Your task to perform on an android device: open app "Flipkart Online Shopping App" (install if not already installed) Image 0: 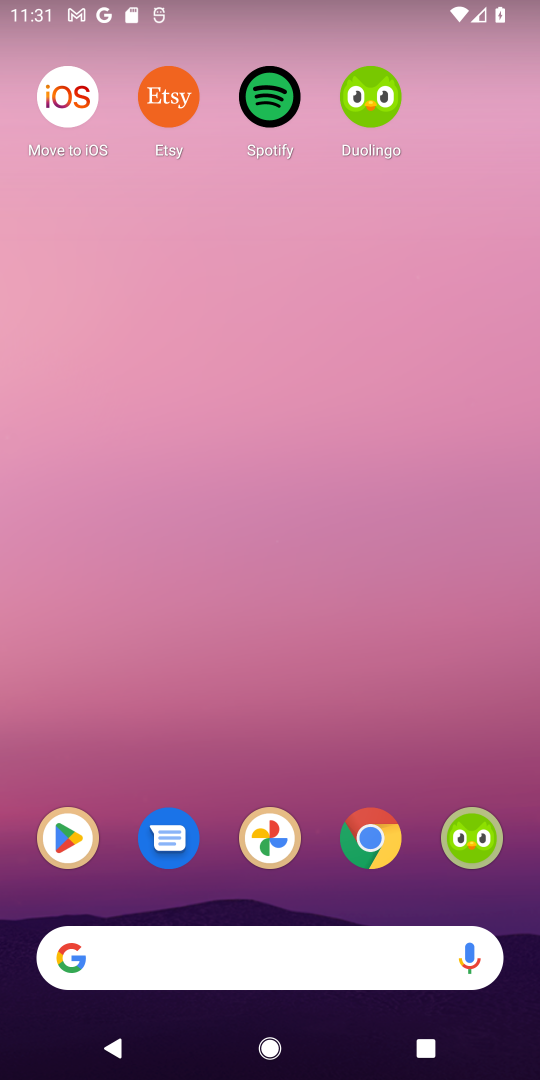
Step 0: drag from (289, 957) to (255, 158)
Your task to perform on an android device: open app "Flipkart Online Shopping App" (install if not already installed) Image 1: 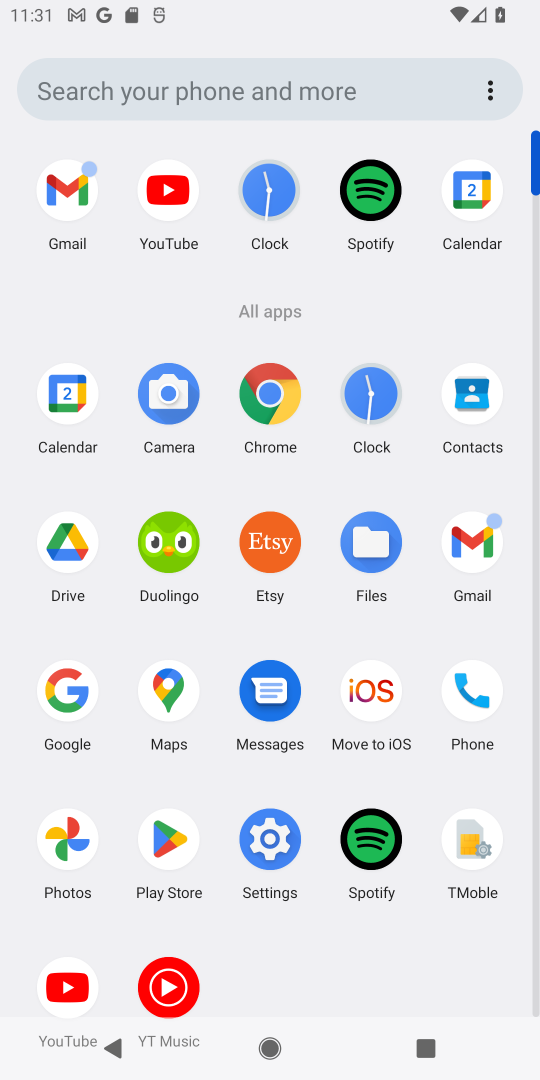
Step 1: click (181, 829)
Your task to perform on an android device: open app "Flipkart Online Shopping App" (install if not already installed) Image 2: 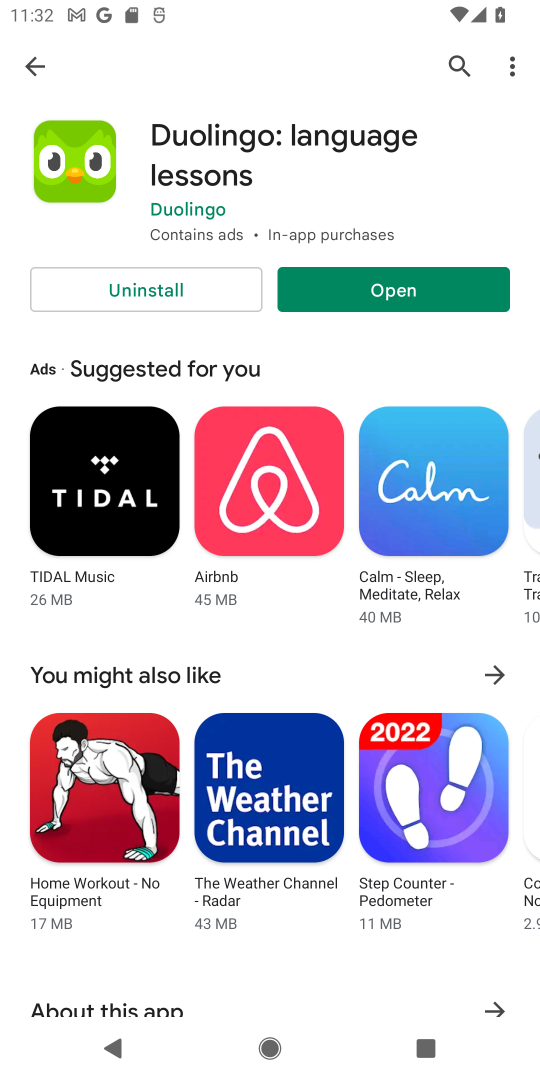
Step 2: click (461, 67)
Your task to perform on an android device: open app "Flipkart Online Shopping App" (install if not already installed) Image 3: 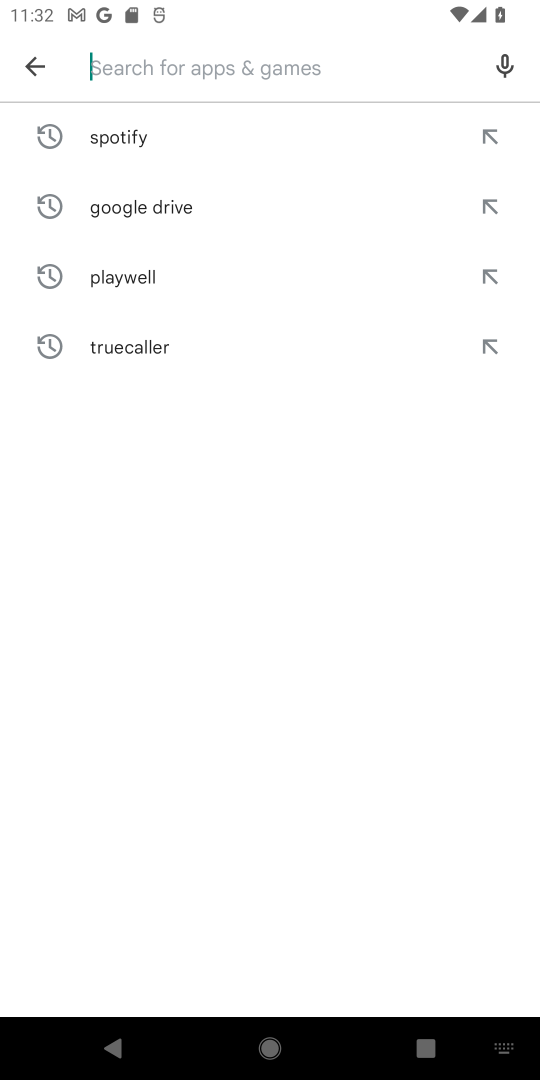
Step 3: type "flipkart"
Your task to perform on an android device: open app "Flipkart Online Shopping App" (install if not already installed) Image 4: 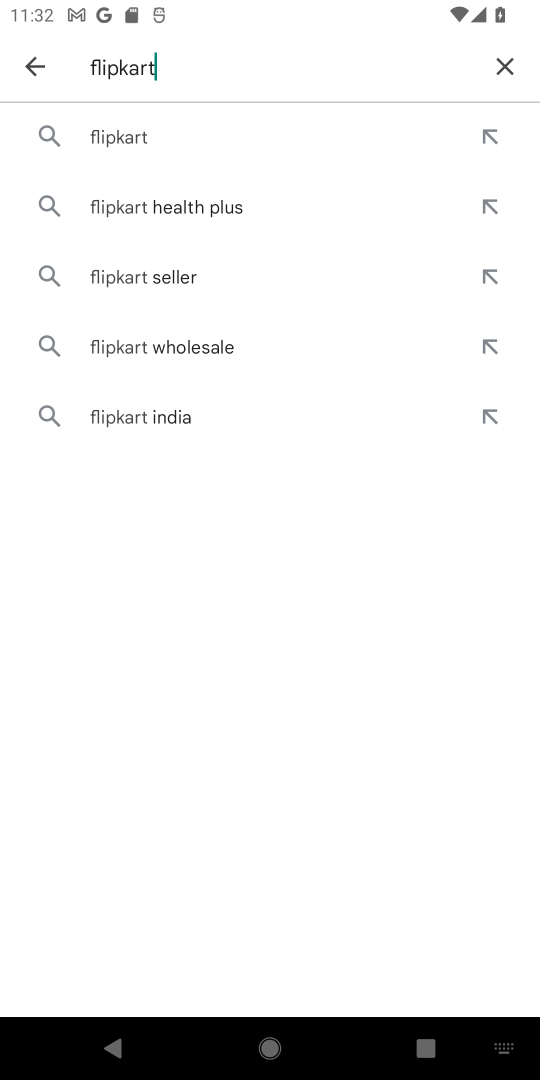
Step 4: click (162, 133)
Your task to perform on an android device: open app "Flipkart Online Shopping App" (install if not already installed) Image 5: 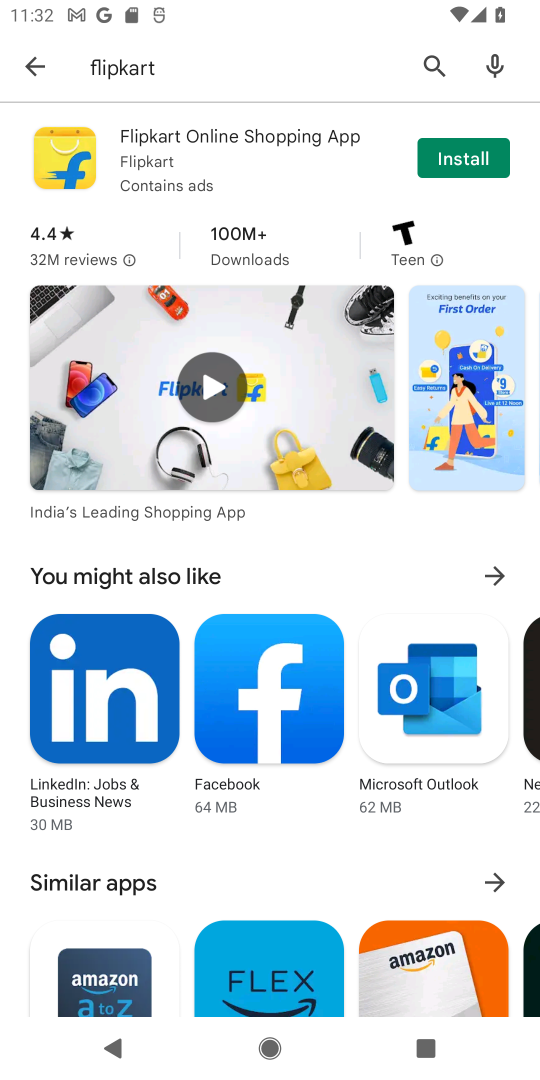
Step 5: click (468, 165)
Your task to perform on an android device: open app "Flipkart Online Shopping App" (install if not already installed) Image 6: 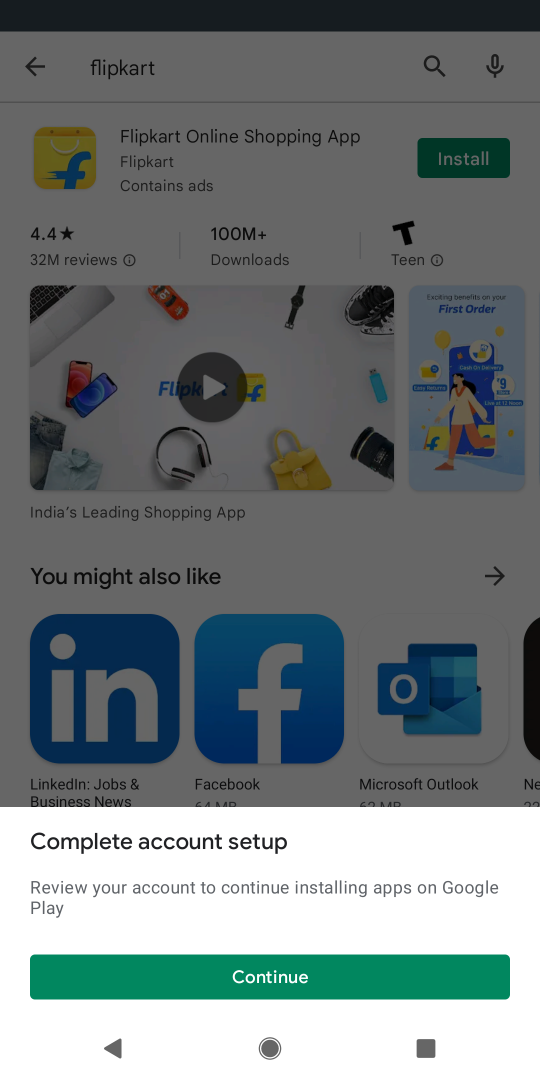
Step 6: click (289, 963)
Your task to perform on an android device: open app "Flipkart Online Shopping App" (install if not already installed) Image 7: 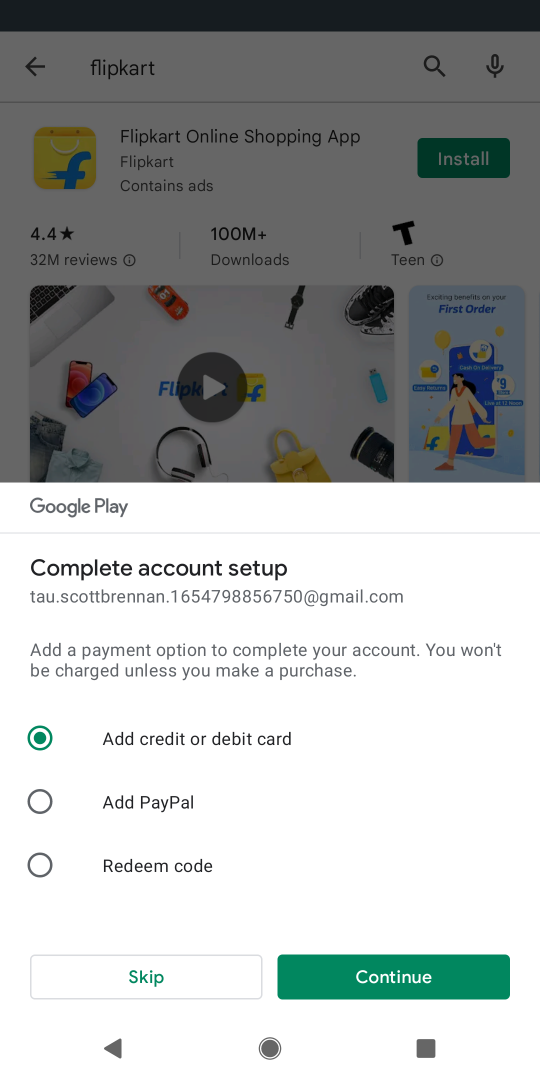
Step 7: click (226, 985)
Your task to perform on an android device: open app "Flipkart Online Shopping App" (install if not already installed) Image 8: 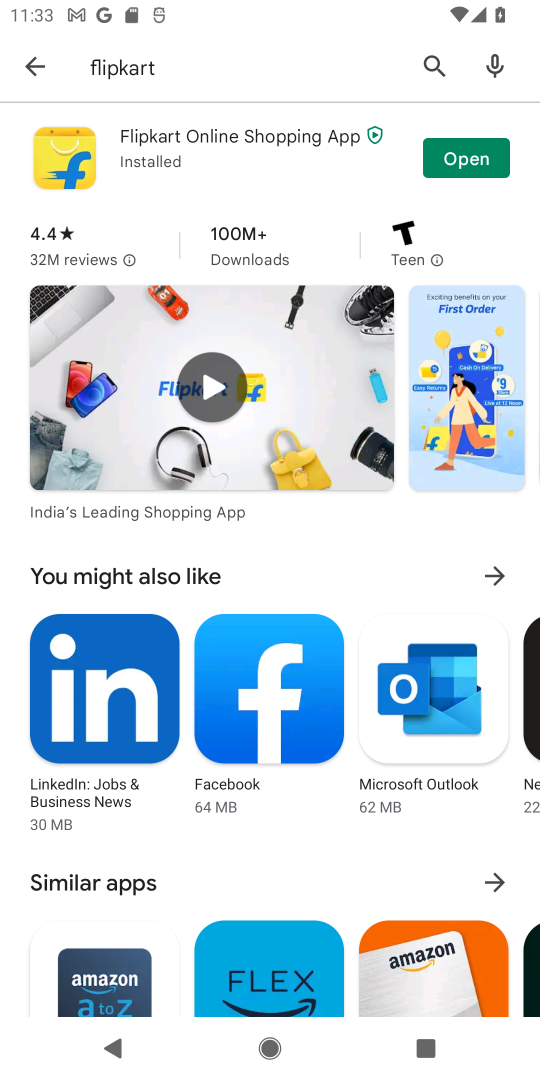
Step 8: click (444, 159)
Your task to perform on an android device: open app "Flipkart Online Shopping App" (install if not already installed) Image 9: 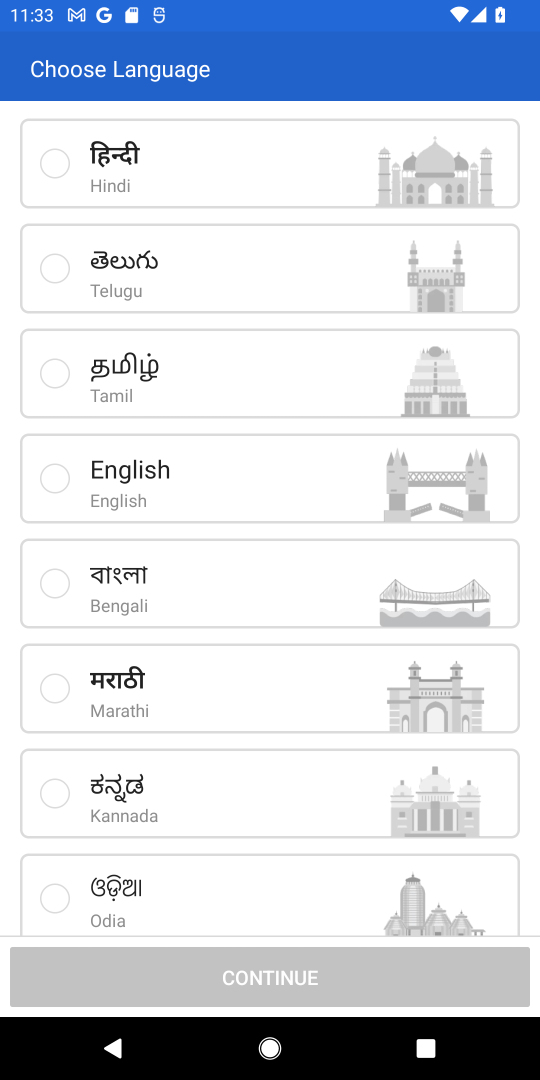
Step 9: task complete